Your task to perform on an android device: View the shopping cart on bestbuy. Search for energizer triple a on bestbuy, select the first entry, and add it to the cart. Image 0: 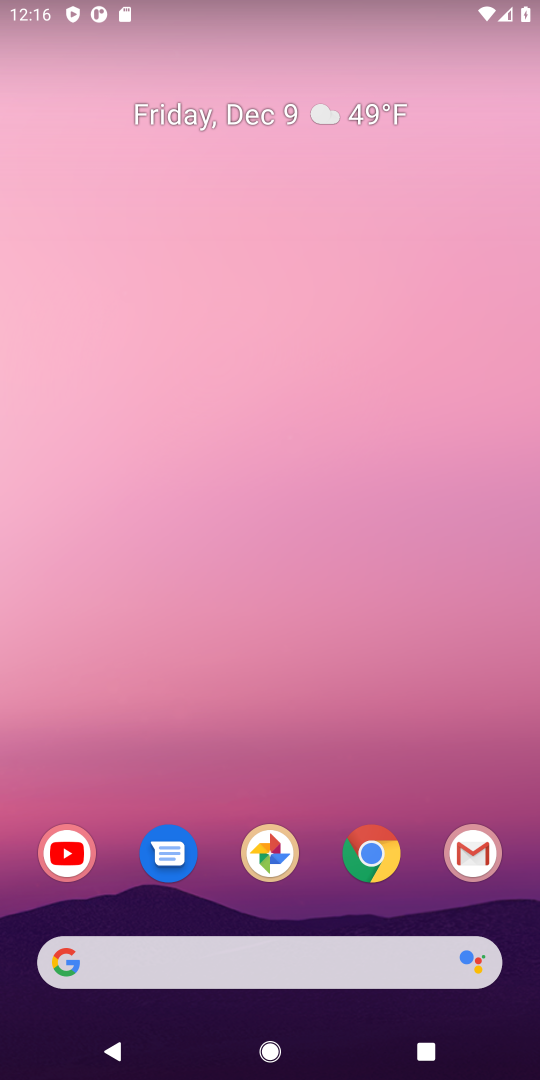
Step 0: drag from (232, 928) to (237, 227)
Your task to perform on an android device: View the shopping cart on bestbuy. Search for energizer triple a on bestbuy, select the first entry, and add it to the cart. Image 1: 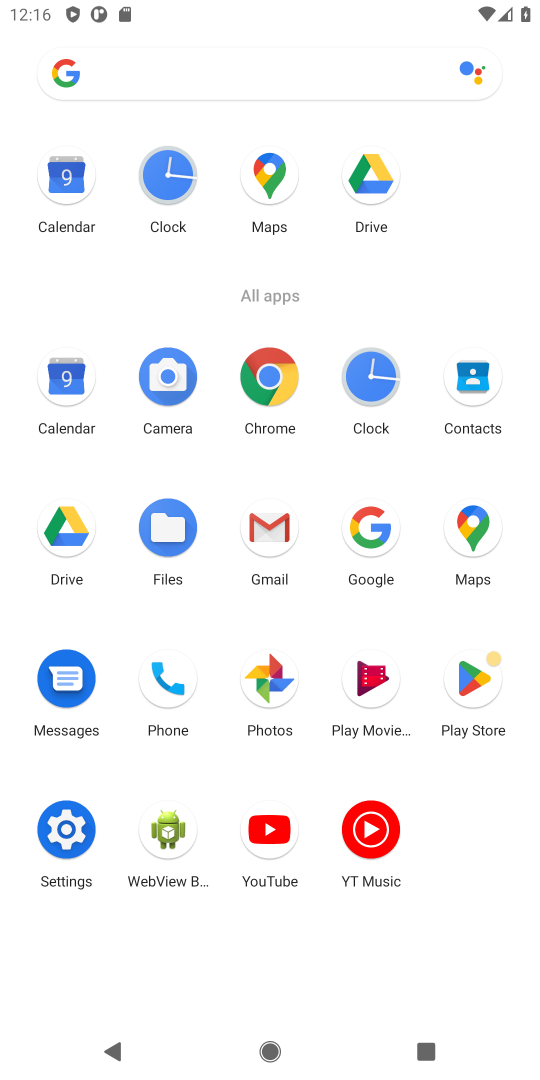
Step 1: click (373, 533)
Your task to perform on an android device: View the shopping cart on bestbuy. Search for energizer triple a on bestbuy, select the first entry, and add it to the cart. Image 2: 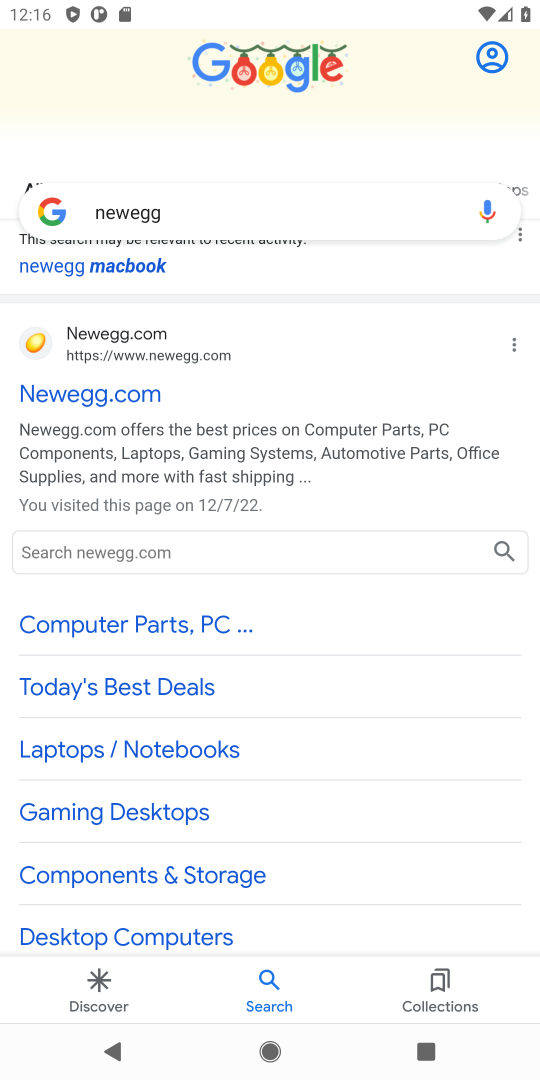
Step 2: click (108, 207)
Your task to perform on an android device: View the shopping cart on bestbuy. Search for energizer triple a on bestbuy, select the first entry, and add it to the cart. Image 3: 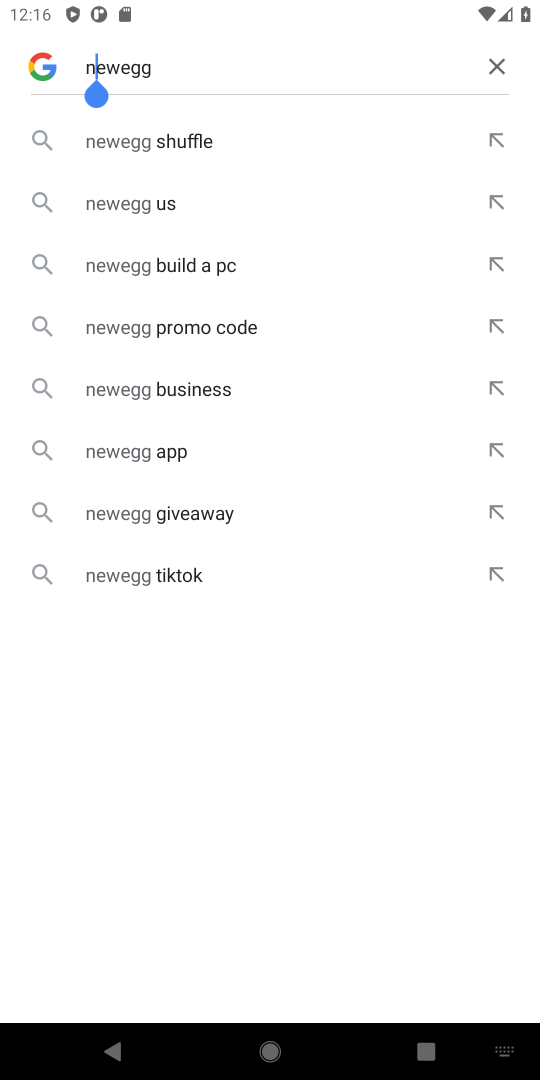
Step 3: click (500, 72)
Your task to perform on an android device: View the shopping cart on bestbuy. Search for energizer triple a on bestbuy, select the first entry, and add it to the cart. Image 4: 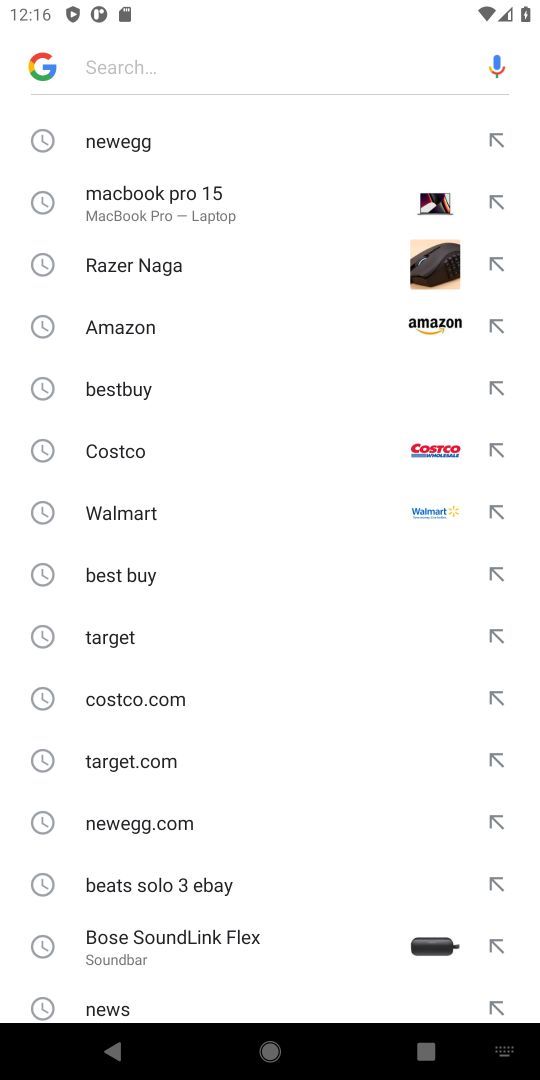
Step 4: click (129, 571)
Your task to perform on an android device: View the shopping cart on bestbuy. Search for energizer triple a on bestbuy, select the first entry, and add it to the cart. Image 5: 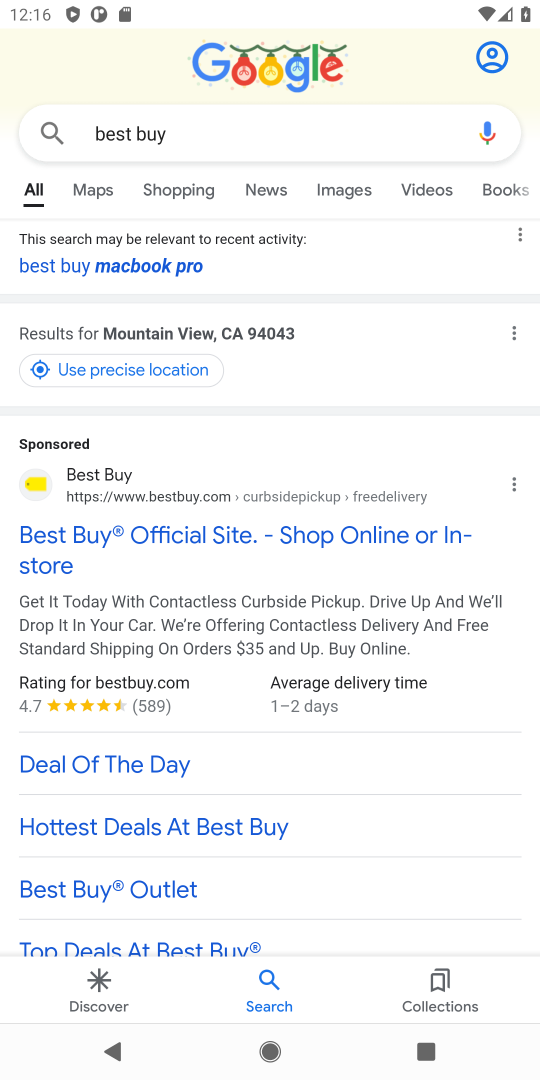
Step 5: click (151, 540)
Your task to perform on an android device: View the shopping cart on bestbuy. Search for energizer triple a on bestbuy, select the first entry, and add it to the cart. Image 6: 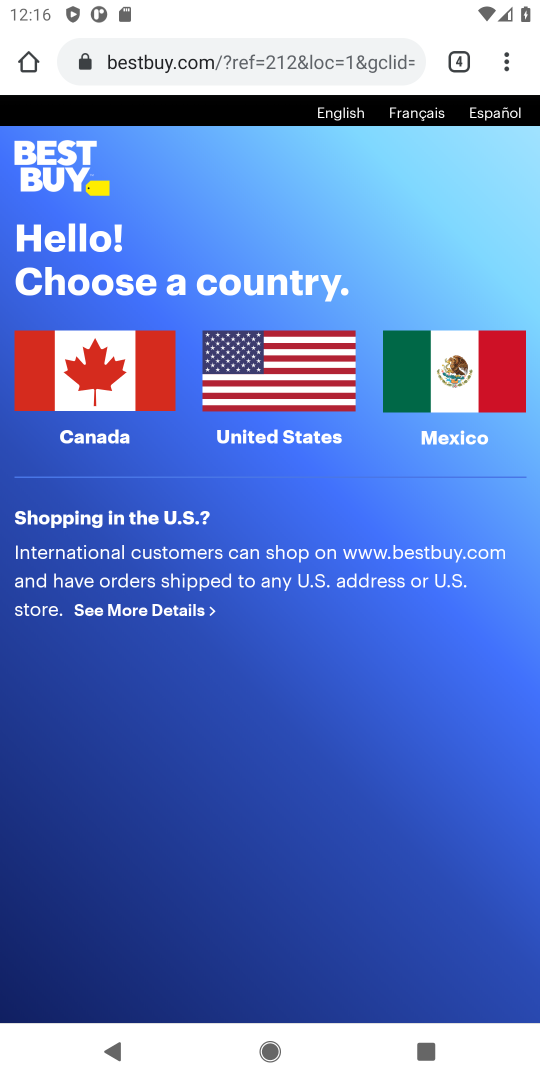
Step 6: click (275, 378)
Your task to perform on an android device: View the shopping cart on bestbuy. Search for energizer triple a on bestbuy, select the first entry, and add it to the cart. Image 7: 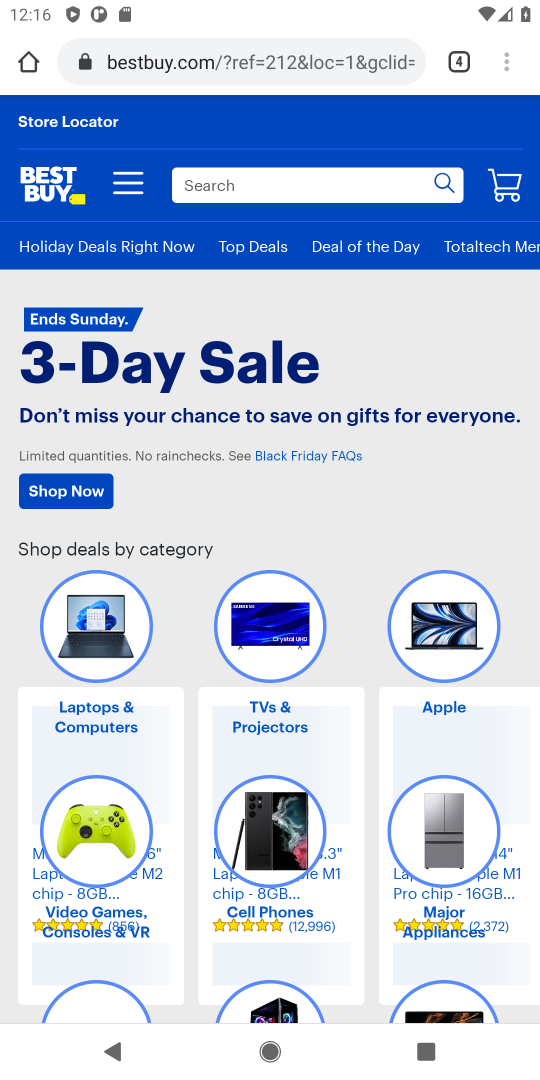
Step 7: click (518, 185)
Your task to perform on an android device: View the shopping cart on bestbuy. Search for energizer triple a on bestbuy, select the first entry, and add it to the cart. Image 8: 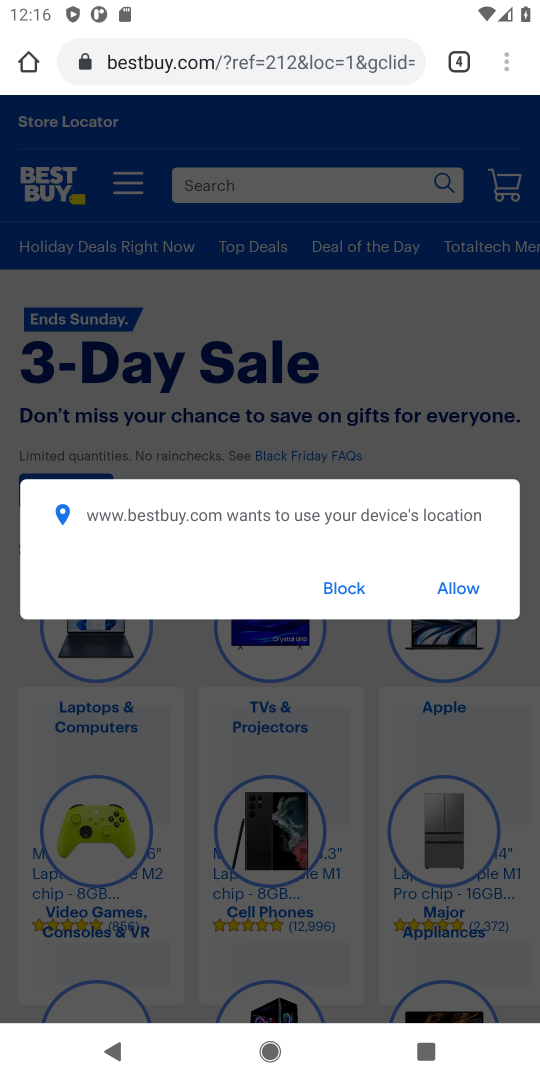
Step 8: click (449, 580)
Your task to perform on an android device: View the shopping cart on bestbuy. Search for energizer triple a on bestbuy, select the first entry, and add it to the cart. Image 9: 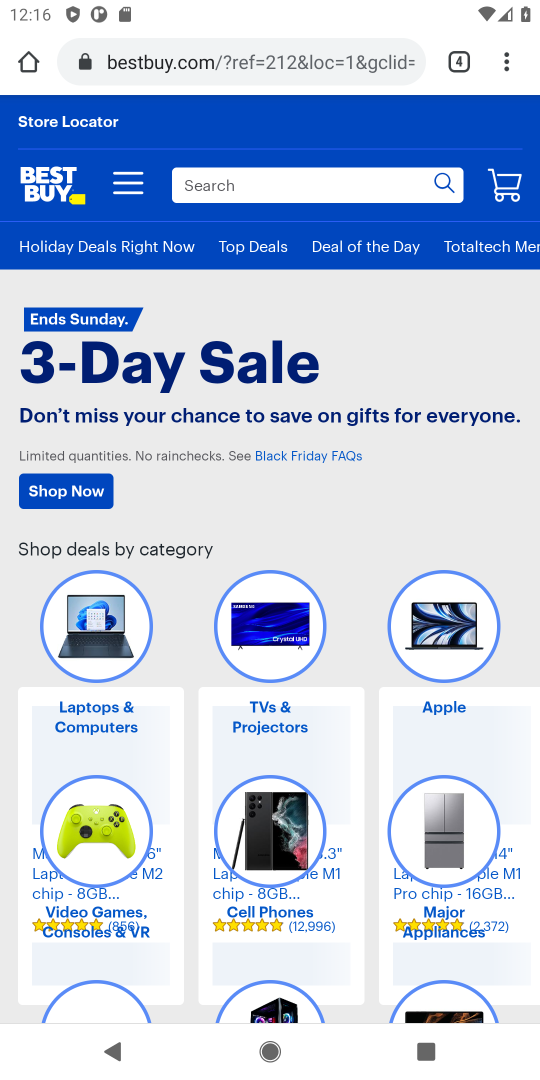
Step 9: click (511, 182)
Your task to perform on an android device: View the shopping cart on bestbuy. Search for energizer triple a on bestbuy, select the first entry, and add it to the cart. Image 10: 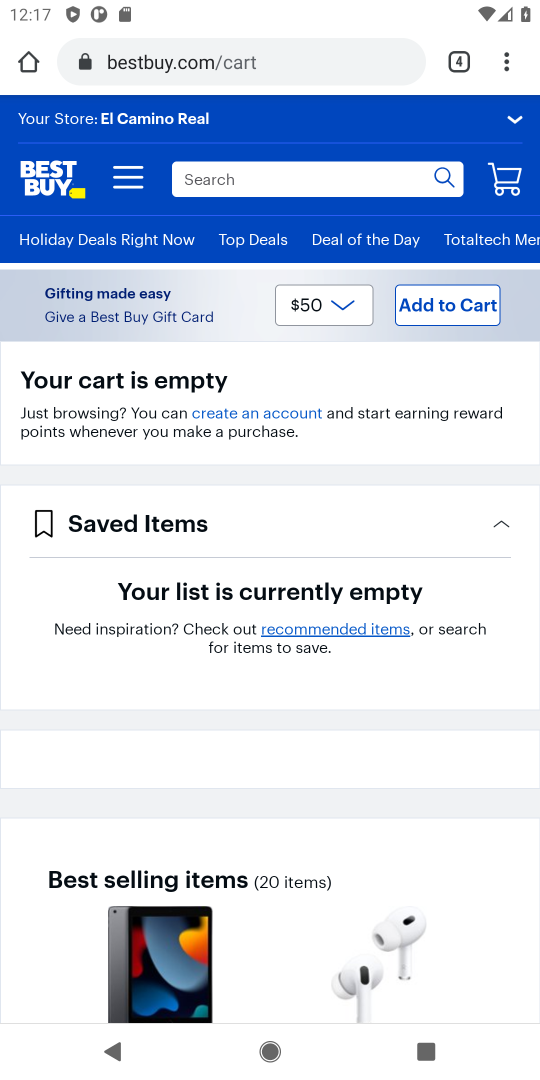
Step 10: click (247, 170)
Your task to perform on an android device: View the shopping cart on bestbuy. Search for energizer triple a on bestbuy, select the first entry, and add it to the cart. Image 11: 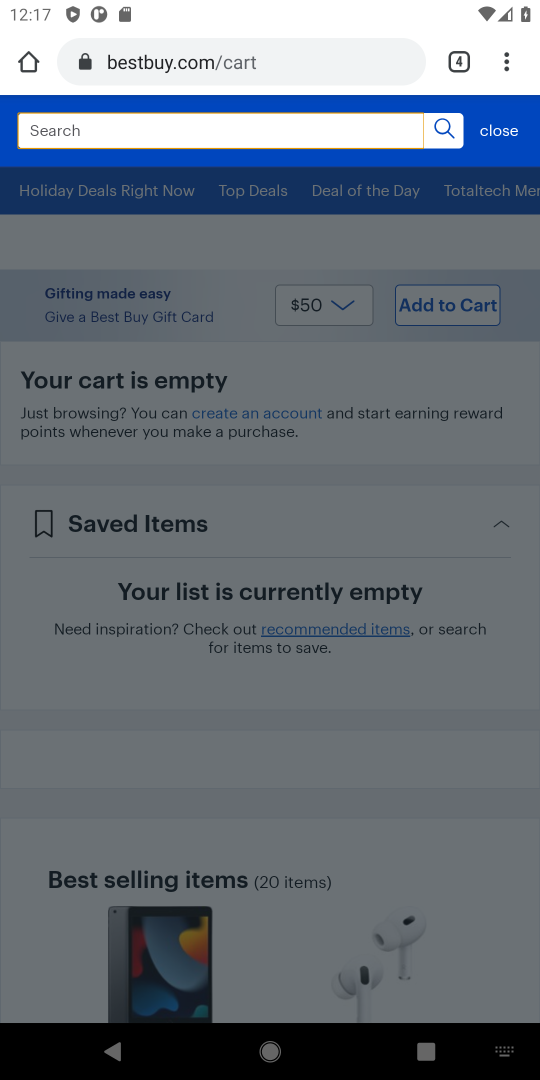
Step 11: type "energizer triple a"
Your task to perform on an android device: View the shopping cart on bestbuy. Search for energizer triple a on bestbuy, select the first entry, and add it to the cart. Image 12: 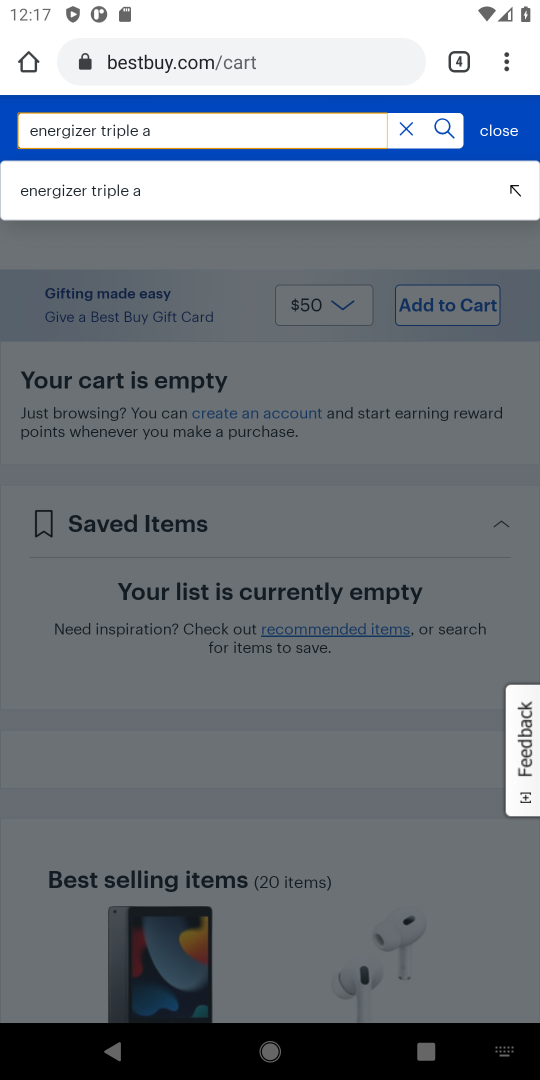
Step 12: click (75, 187)
Your task to perform on an android device: View the shopping cart on bestbuy. Search for energizer triple a on bestbuy, select the first entry, and add it to the cart. Image 13: 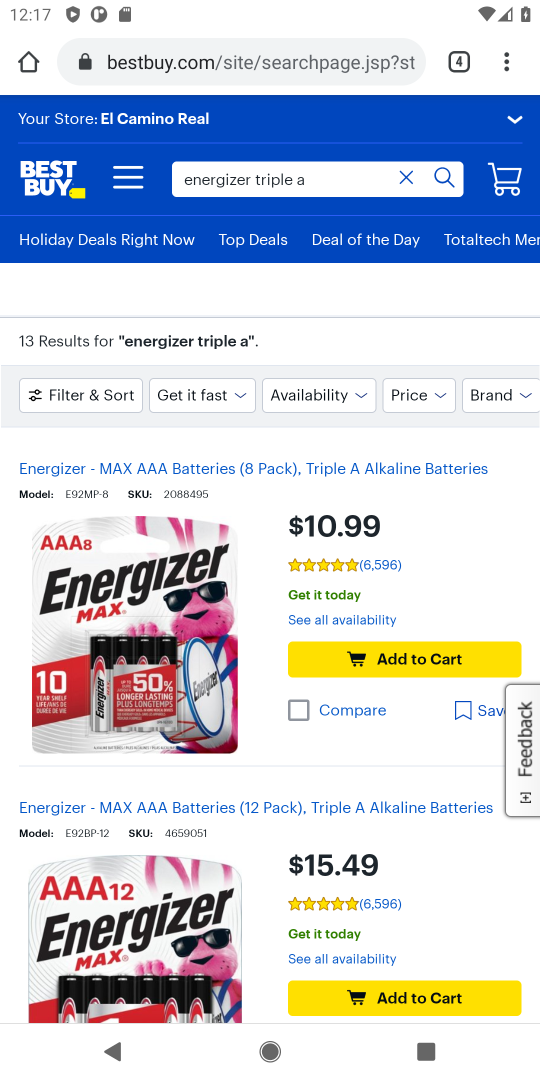
Step 13: click (405, 655)
Your task to perform on an android device: View the shopping cart on bestbuy. Search for energizer triple a on bestbuy, select the first entry, and add it to the cart. Image 14: 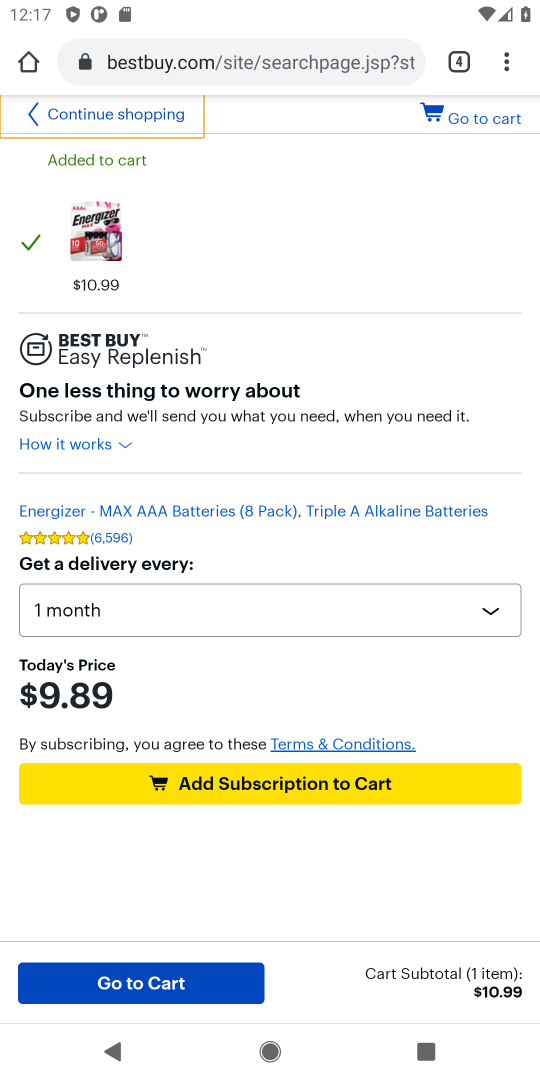
Step 14: click (148, 980)
Your task to perform on an android device: View the shopping cart on bestbuy. Search for energizer triple a on bestbuy, select the first entry, and add it to the cart. Image 15: 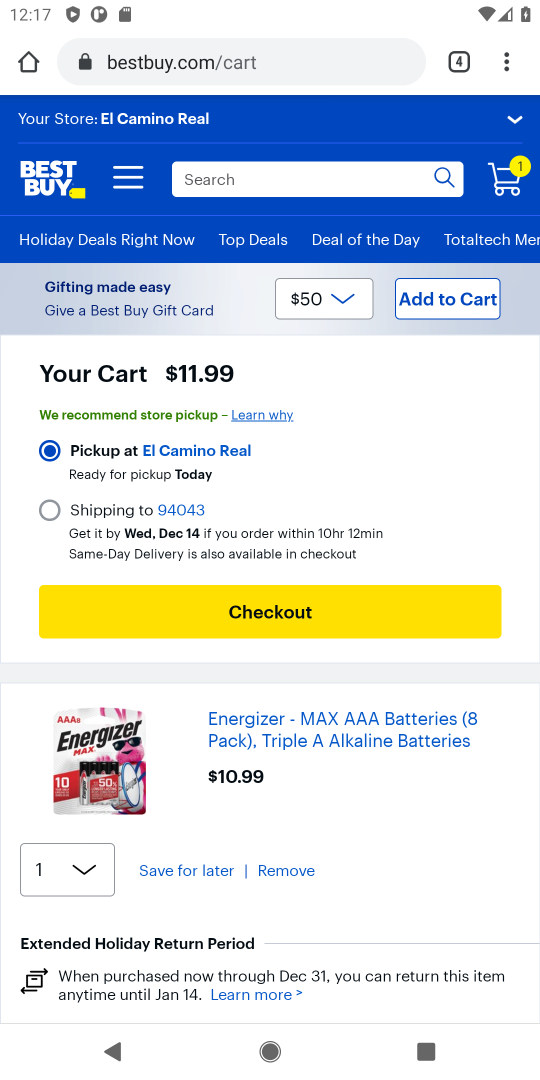
Step 15: click (235, 613)
Your task to perform on an android device: View the shopping cart on bestbuy. Search for energizer triple a on bestbuy, select the first entry, and add it to the cart. Image 16: 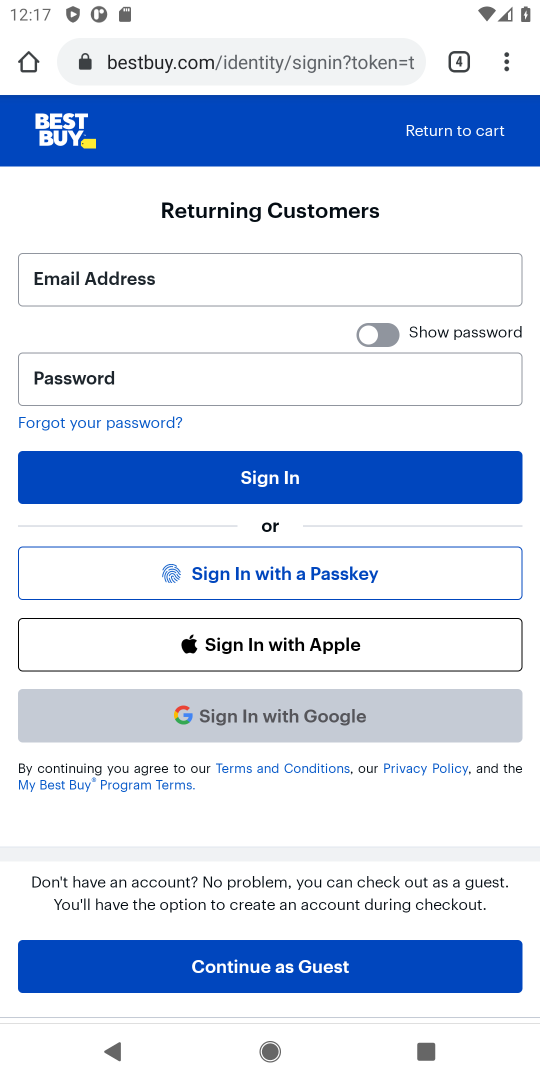
Step 16: task complete